Your task to perform on an android device: stop showing notifications on the lock screen Image 0: 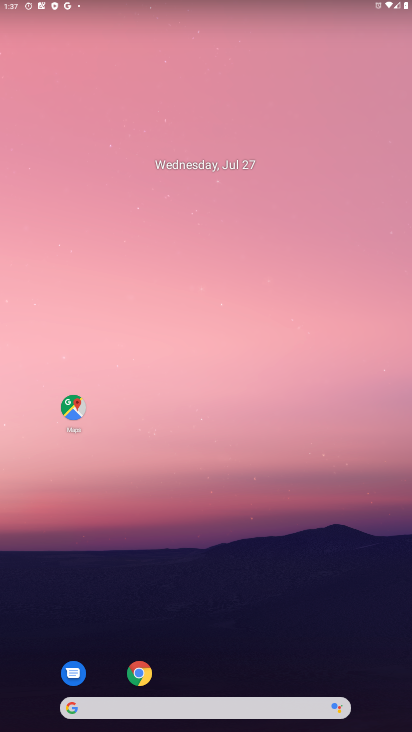
Step 0: drag from (237, 690) to (265, 121)
Your task to perform on an android device: stop showing notifications on the lock screen Image 1: 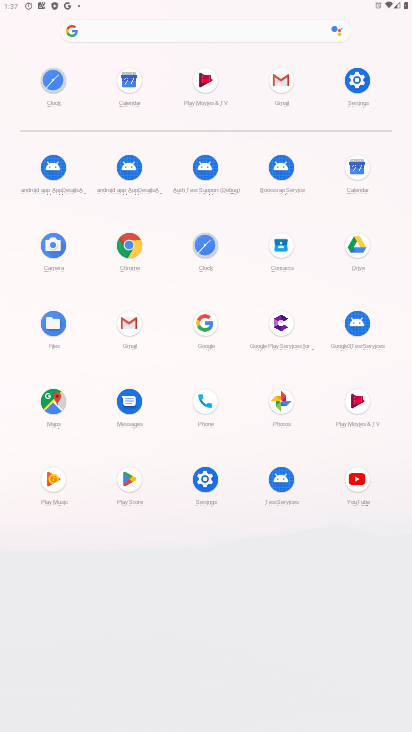
Step 1: click (362, 87)
Your task to perform on an android device: stop showing notifications on the lock screen Image 2: 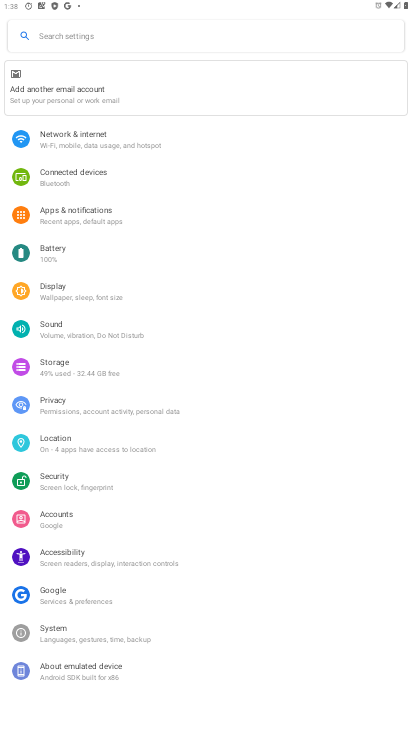
Step 2: click (90, 222)
Your task to perform on an android device: stop showing notifications on the lock screen Image 3: 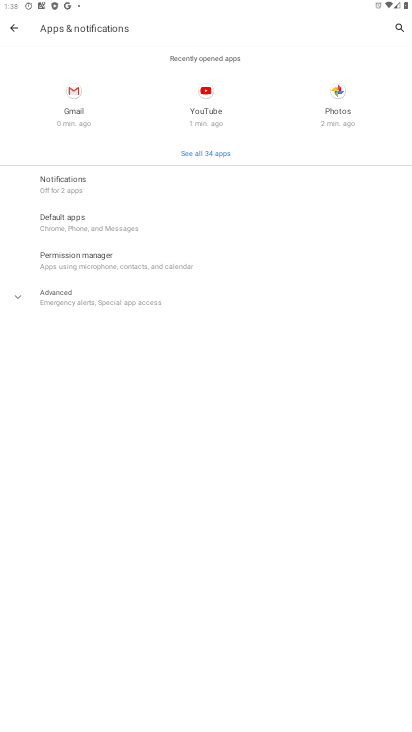
Step 3: click (69, 183)
Your task to perform on an android device: stop showing notifications on the lock screen Image 4: 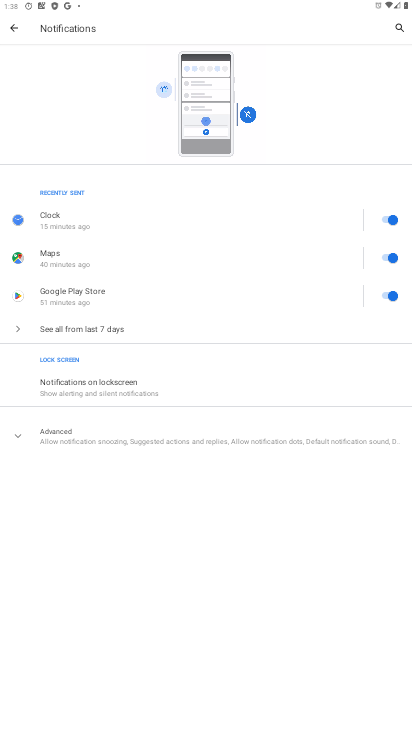
Step 4: click (66, 391)
Your task to perform on an android device: stop showing notifications on the lock screen Image 5: 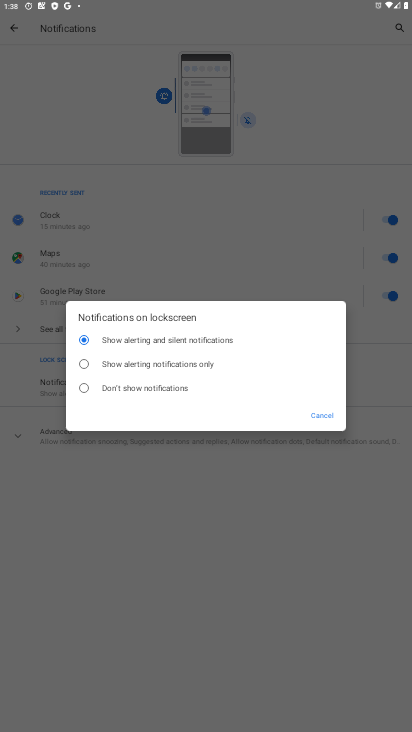
Step 5: click (78, 391)
Your task to perform on an android device: stop showing notifications on the lock screen Image 6: 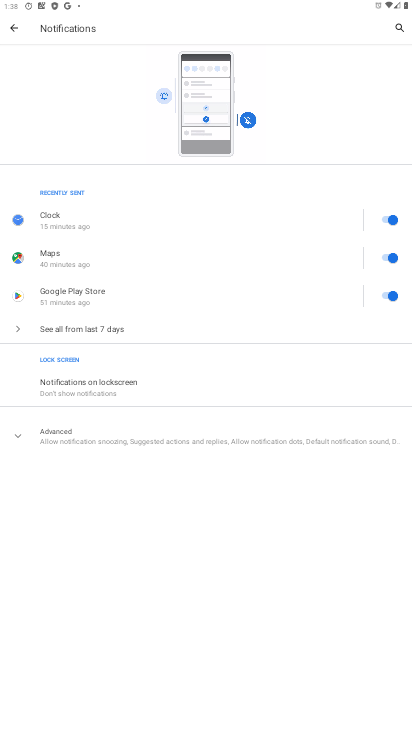
Step 6: task complete